Your task to perform on an android device: Search for Italian restaurants on Maps Image 0: 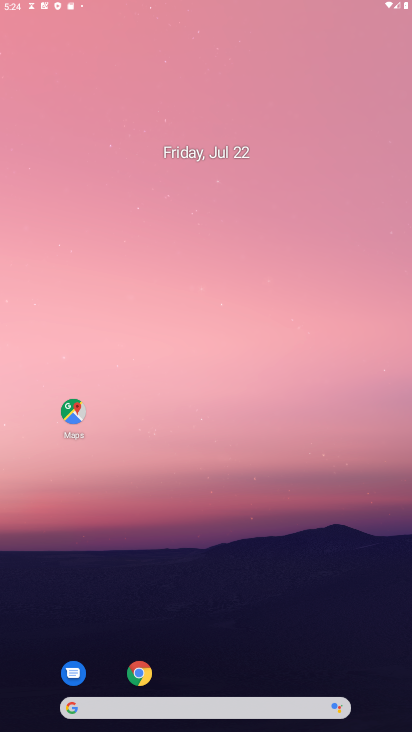
Step 0: press home button
Your task to perform on an android device: Search for Italian restaurants on Maps Image 1: 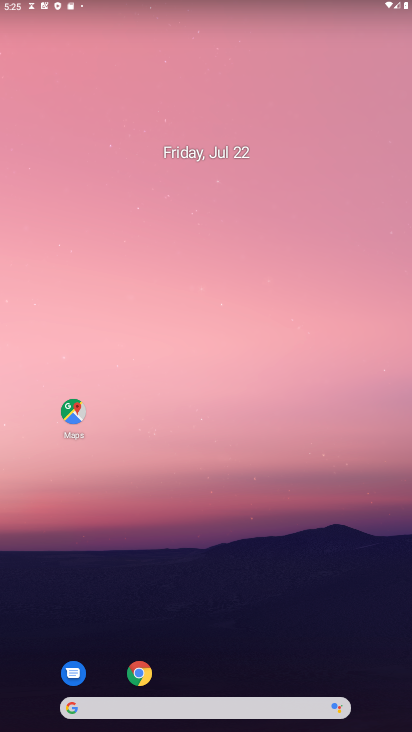
Step 1: drag from (243, 642) to (340, 104)
Your task to perform on an android device: Search for Italian restaurants on Maps Image 2: 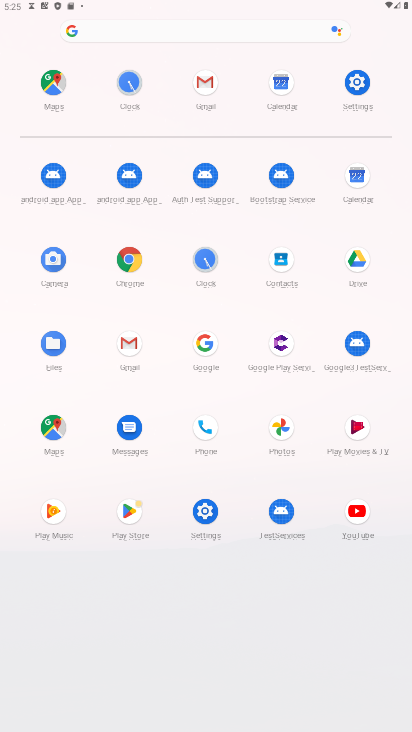
Step 2: click (56, 84)
Your task to perform on an android device: Search for Italian restaurants on Maps Image 3: 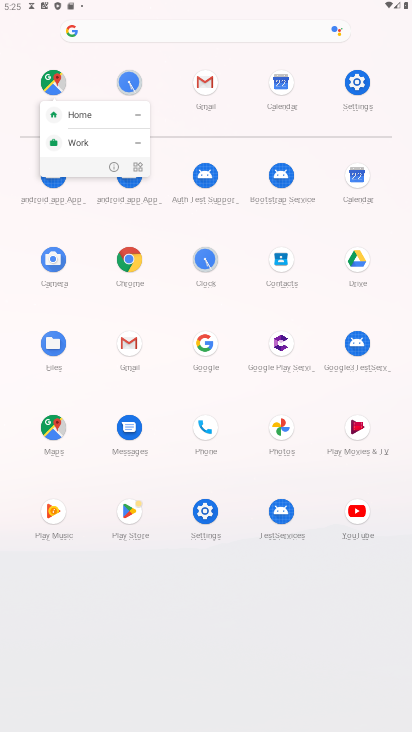
Step 3: click (56, 84)
Your task to perform on an android device: Search for Italian restaurants on Maps Image 4: 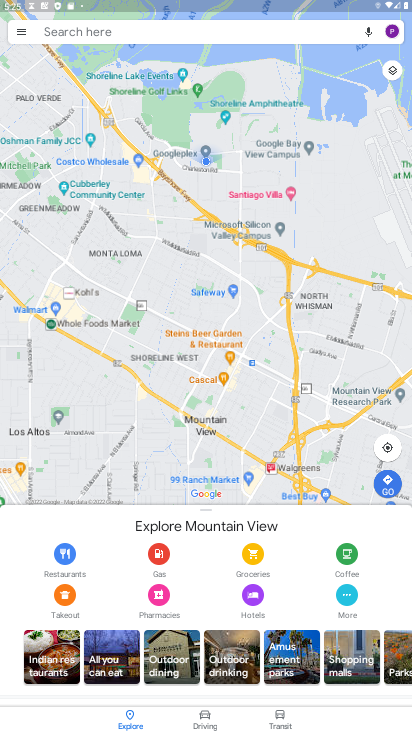
Step 4: click (116, 32)
Your task to perform on an android device: Search for Italian restaurants on Maps Image 5: 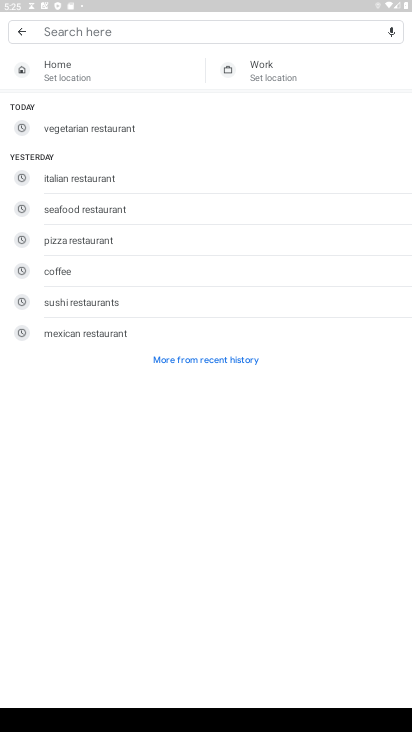
Step 5: click (74, 176)
Your task to perform on an android device: Search for Italian restaurants on Maps Image 6: 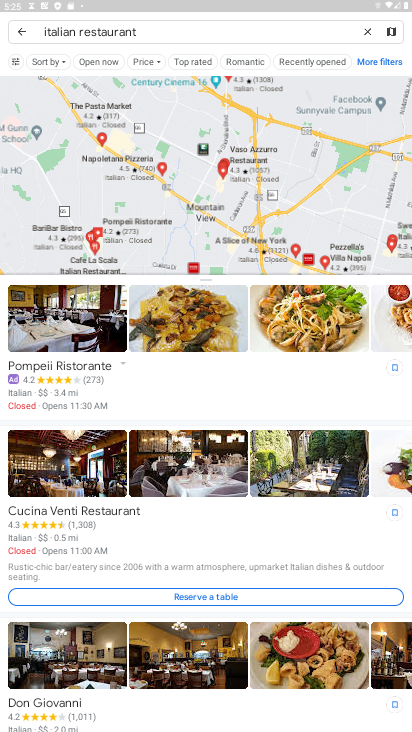
Step 6: task complete